Your task to perform on an android device: check google app version Image 0: 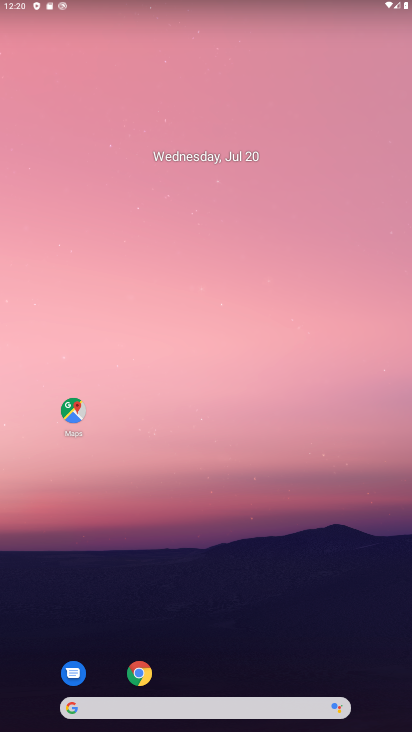
Step 0: click (68, 706)
Your task to perform on an android device: check google app version Image 1: 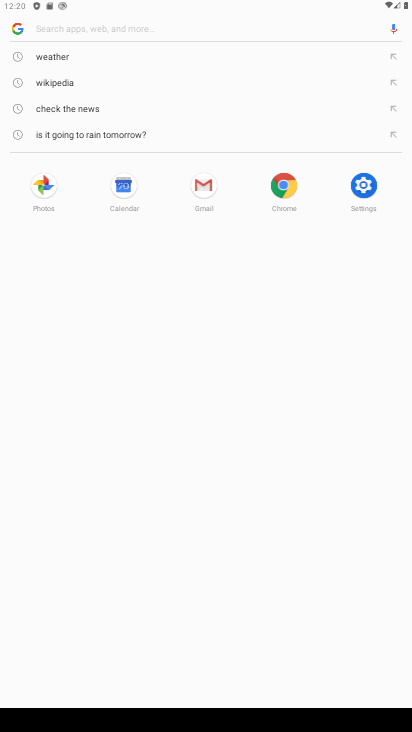
Step 1: click (13, 23)
Your task to perform on an android device: check google app version Image 2: 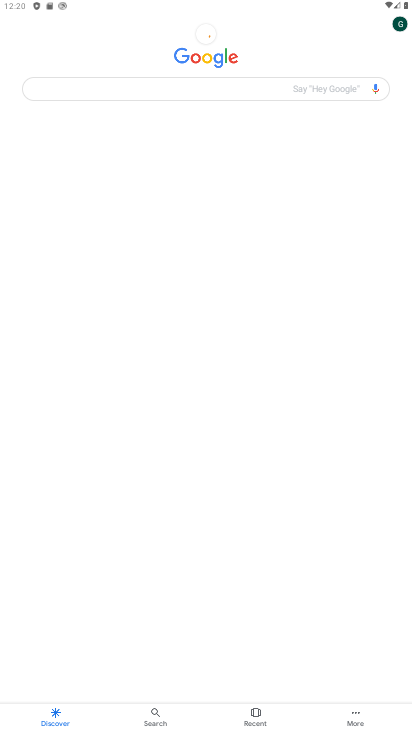
Step 2: click (344, 709)
Your task to perform on an android device: check google app version Image 3: 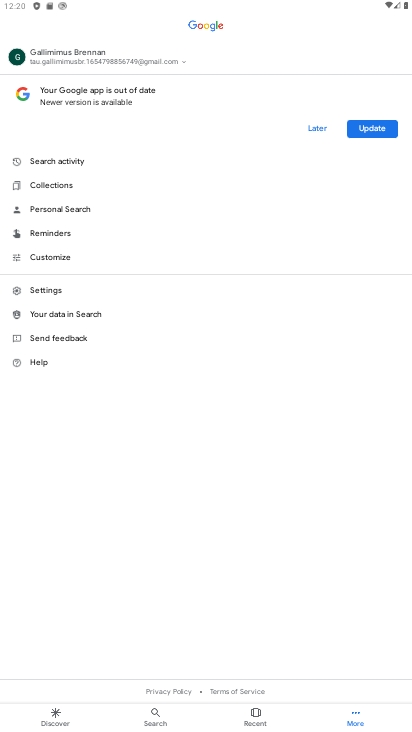
Step 3: click (49, 289)
Your task to perform on an android device: check google app version Image 4: 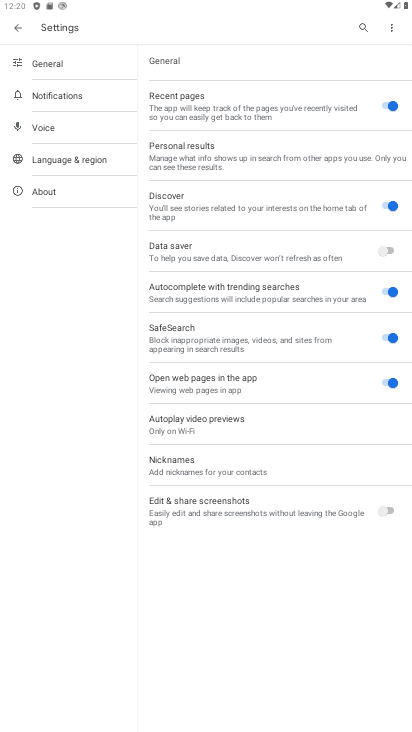
Step 4: click (69, 195)
Your task to perform on an android device: check google app version Image 5: 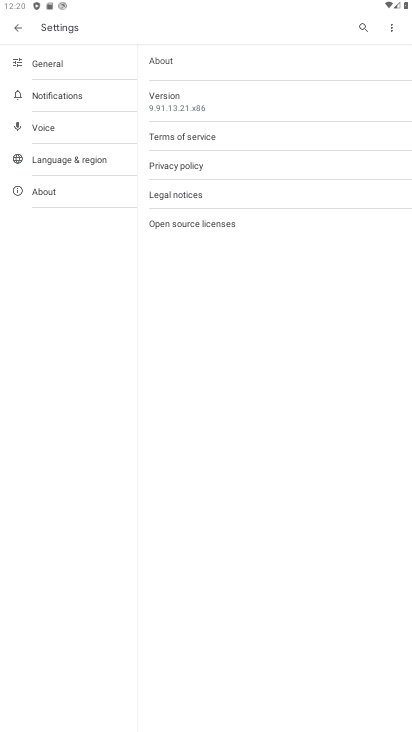
Step 5: task complete